Your task to perform on an android device: change alarm snooze length Image 0: 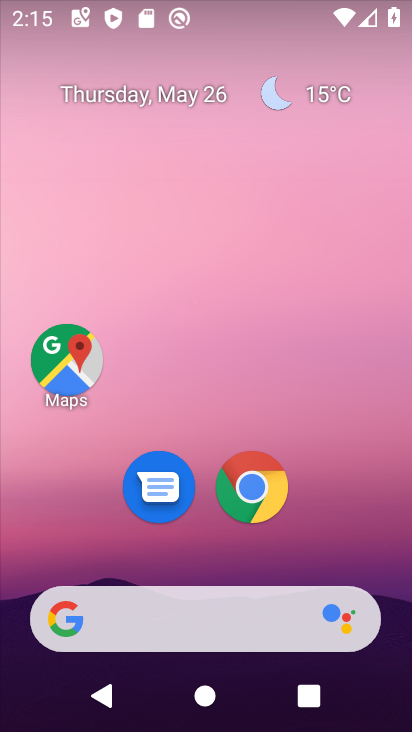
Step 0: drag from (210, 556) to (210, 200)
Your task to perform on an android device: change alarm snooze length Image 1: 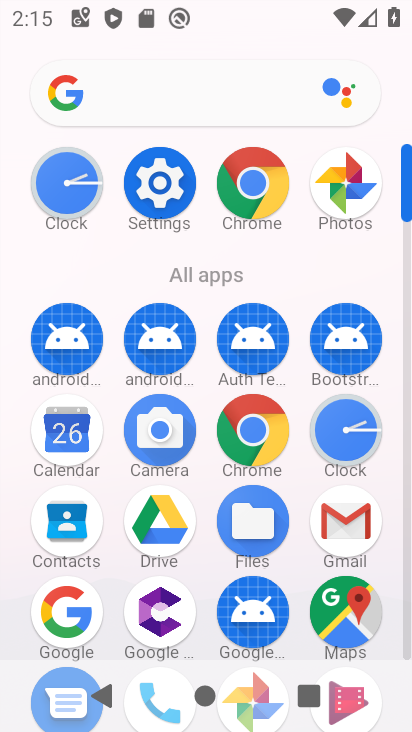
Step 1: click (369, 443)
Your task to perform on an android device: change alarm snooze length Image 2: 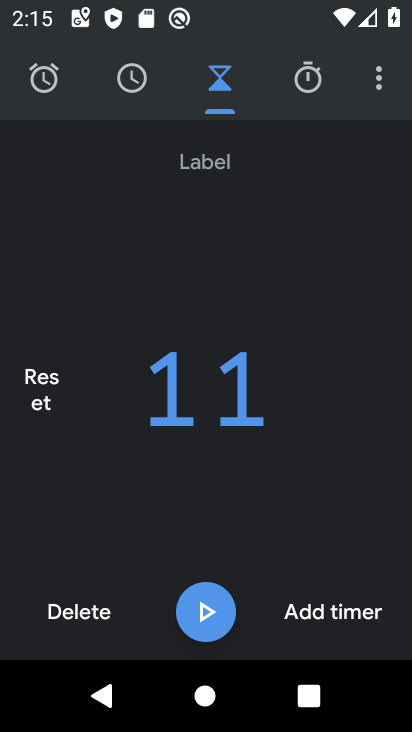
Step 2: click (374, 81)
Your task to perform on an android device: change alarm snooze length Image 3: 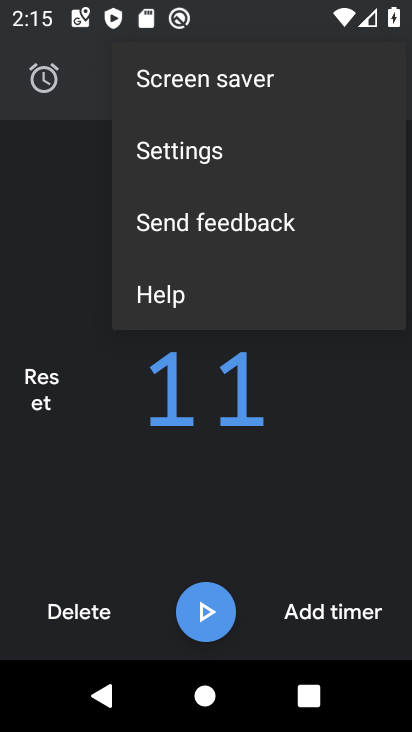
Step 3: click (241, 148)
Your task to perform on an android device: change alarm snooze length Image 4: 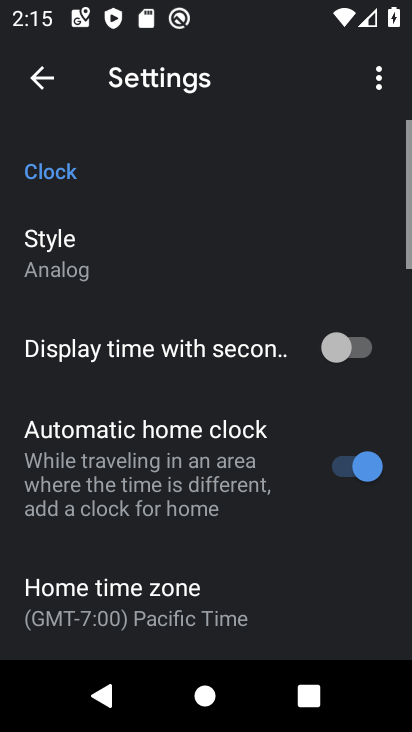
Step 4: drag from (190, 571) to (203, 230)
Your task to perform on an android device: change alarm snooze length Image 5: 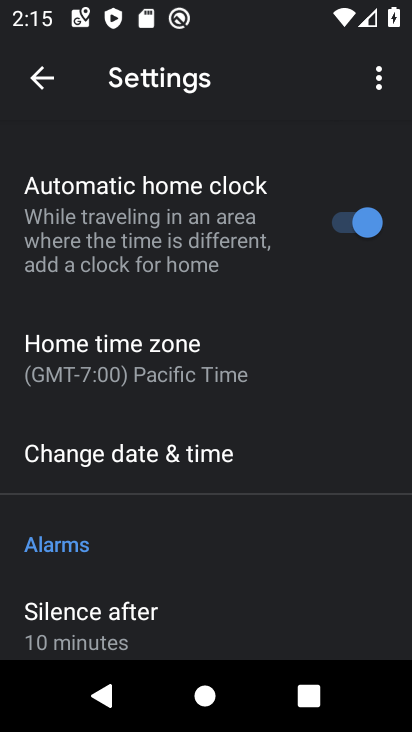
Step 5: drag from (221, 625) to (261, 275)
Your task to perform on an android device: change alarm snooze length Image 6: 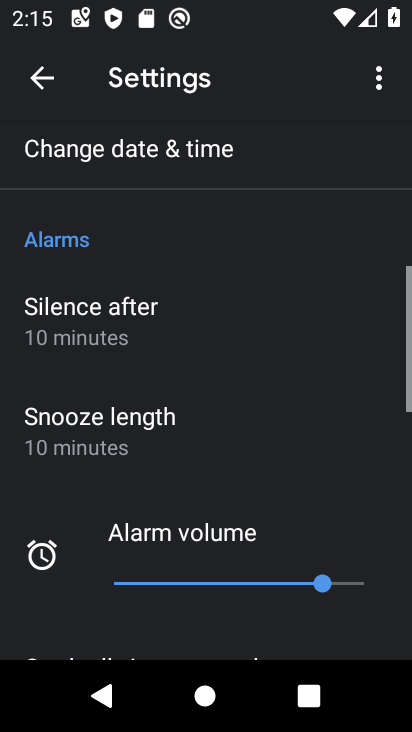
Step 6: drag from (227, 443) to (237, 225)
Your task to perform on an android device: change alarm snooze length Image 7: 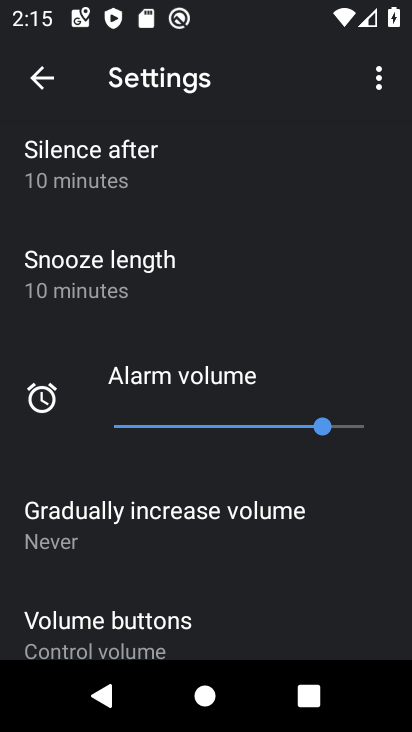
Step 7: click (151, 266)
Your task to perform on an android device: change alarm snooze length Image 8: 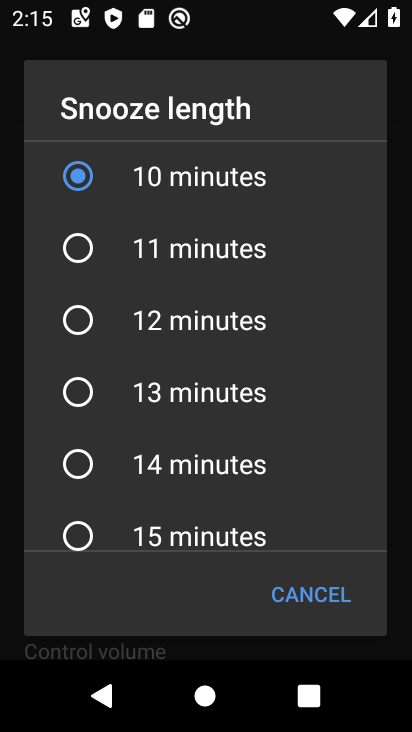
Step 8: click (146, 462)
Your task to perform on an android device: change alarm snooze length Image 9: 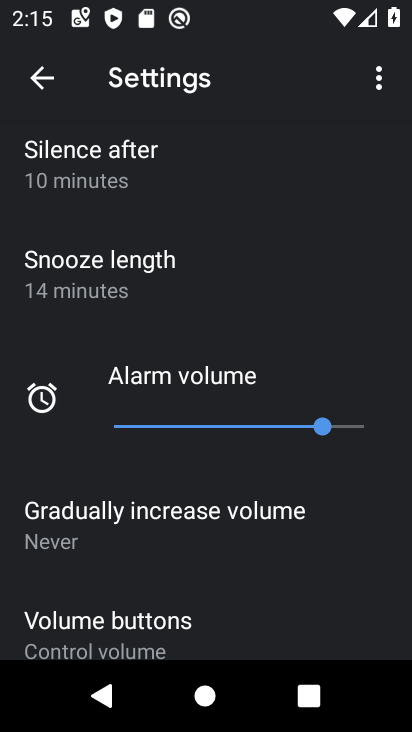
Step 9: task complete